Your task to perform on an android device: Open Chrome and go to the settings page Image 0: 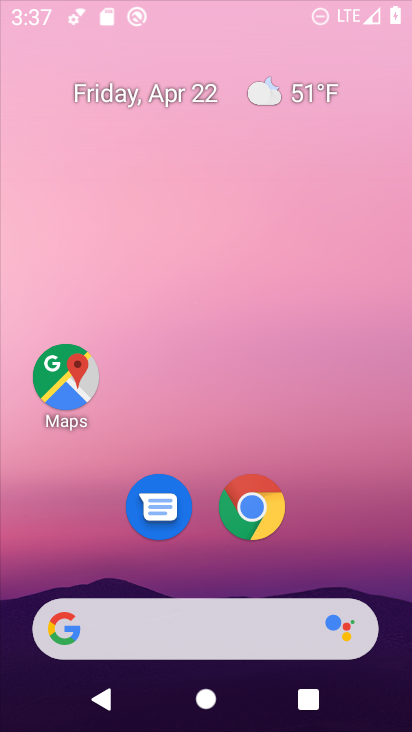
Step 0: drag from (144, 165) to (282, 142)
Your task to perform on an android device: Open Chrome and go to the settings page Image 1: 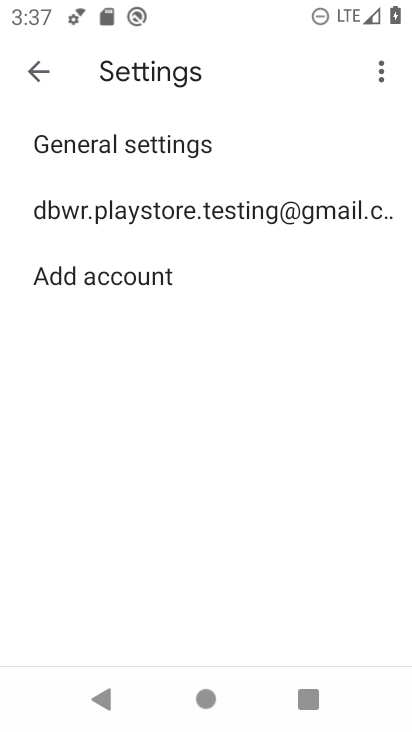
Step 1: press home button
Your task to perform on an android device: Open Chrome and go to the settings page Image 2: 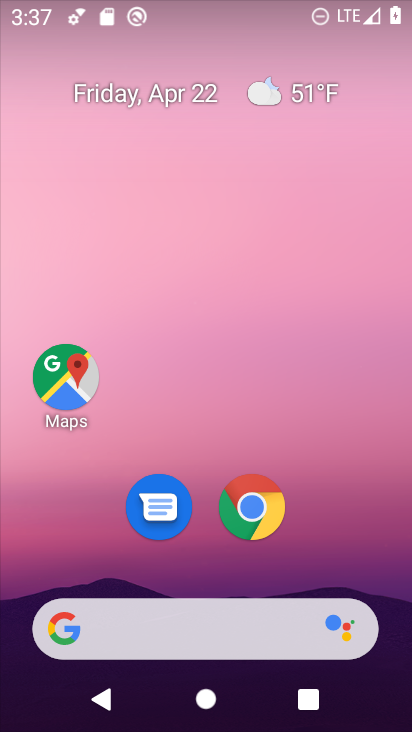
Step 2: click (229, 513)
Your task to perform on an android device: Open Chrome and go to the settings page Image 3: 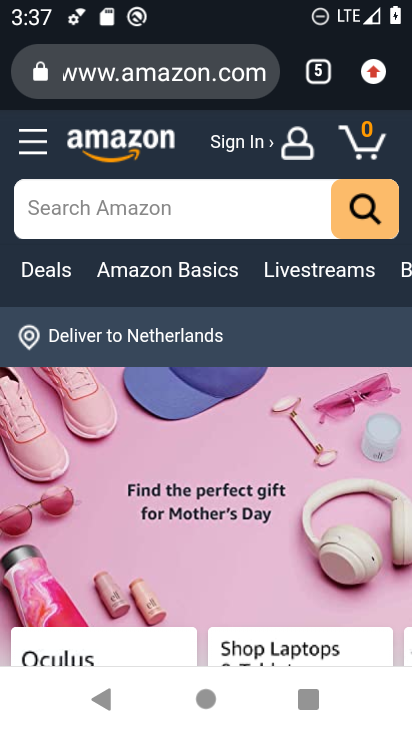
Step 3: task complete